Your task to perform on an android device: Search for pizza restaurants on Maps Image 0: 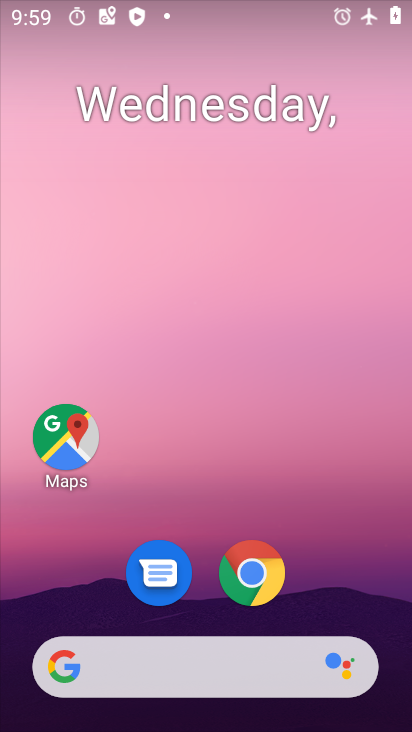
Step 0: drag from (206, 542) to (230, 146)
Your task to perform on an android device: Search for pizza restaurants on Maps Image 1: 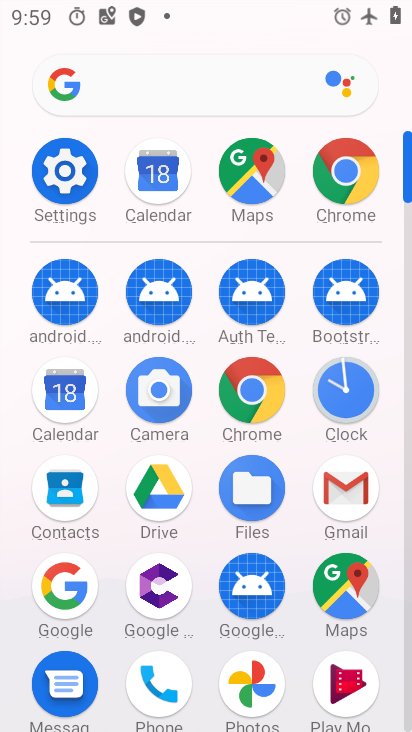
Step 1: click (248, 181)
Your task to perform on an android device: Search for pizza restaurants on Maps Image 2: 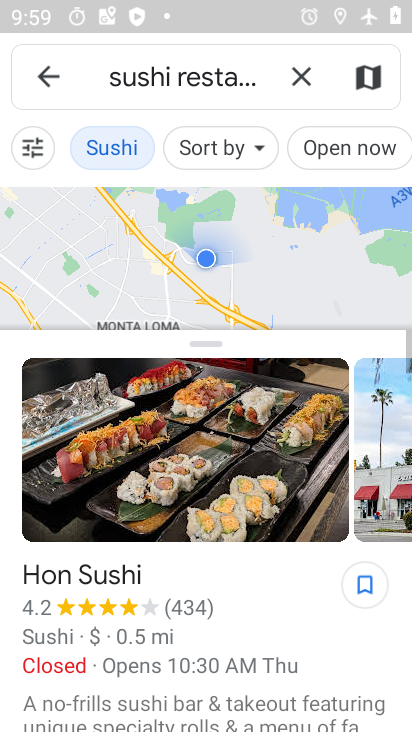
Step 2: click (309, 103)
Your task to perform on an android device: Search for pizza restaurants on Maps Image 3: 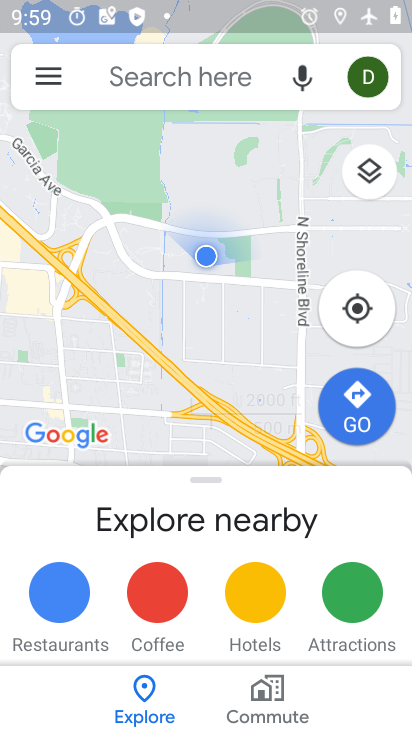
Step 3: click (230, 80)
Your task to perform on an android device: Search for pizza restaurants on Maps Image 4: 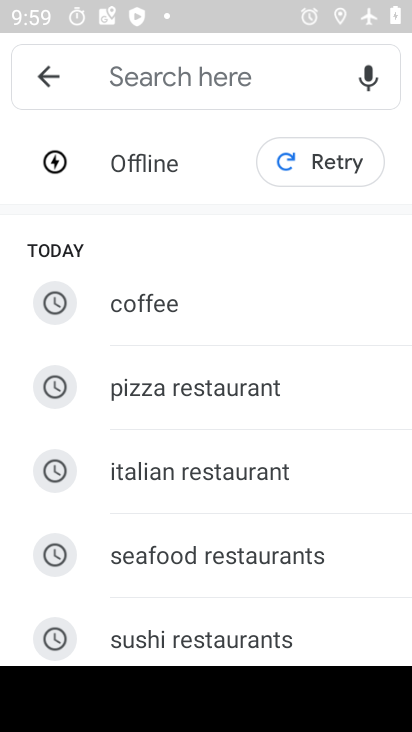
Step 4: drag from (312, 637) to (326, 428)
Your task to perform on an android device: Search for pizza restaurants on Maps Image 5: 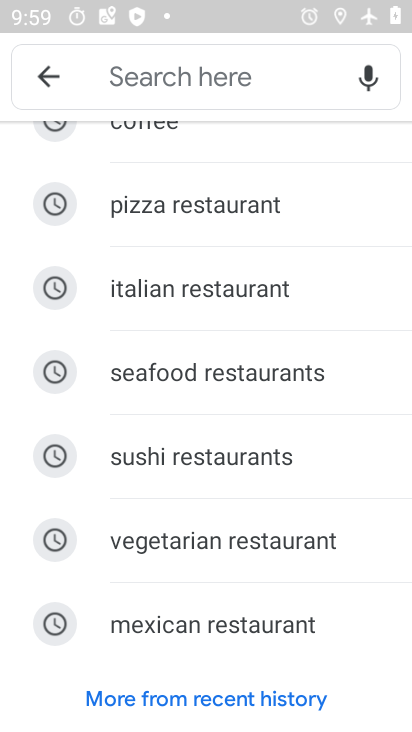
Step 5: click (278, 191)
Your task to perform on an android device: Search for pizza restaurants on Maps Image 6: 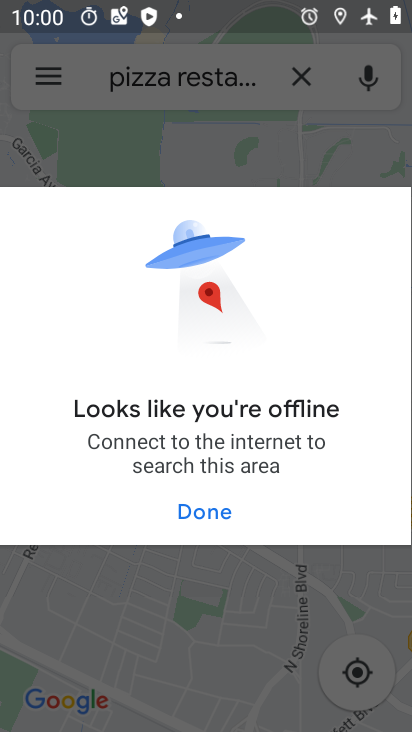
Step 6: task complete